Your task to perform on an android device: Open CNN.com Image 0: 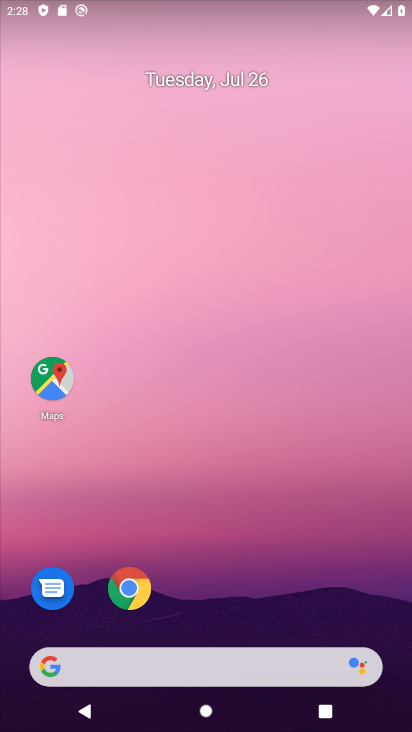
Step 0: drag from (230, 620) to (220, 102)
Your task to perform on an android device: Open CNN.com Image 1: 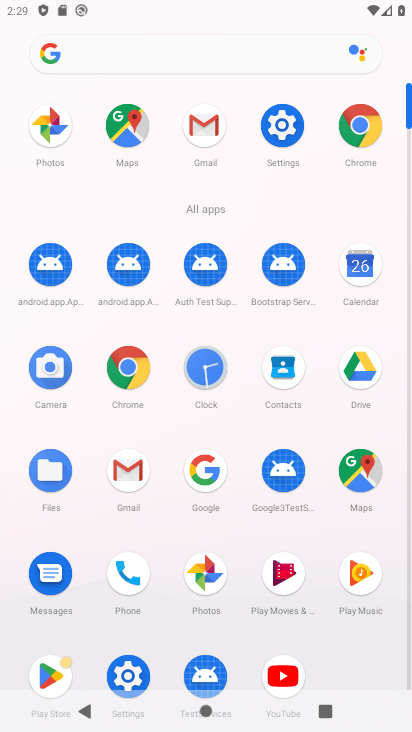
Step 1: click (356, 128)
Your task to perform on an android device: Open CNN.com Image 2: 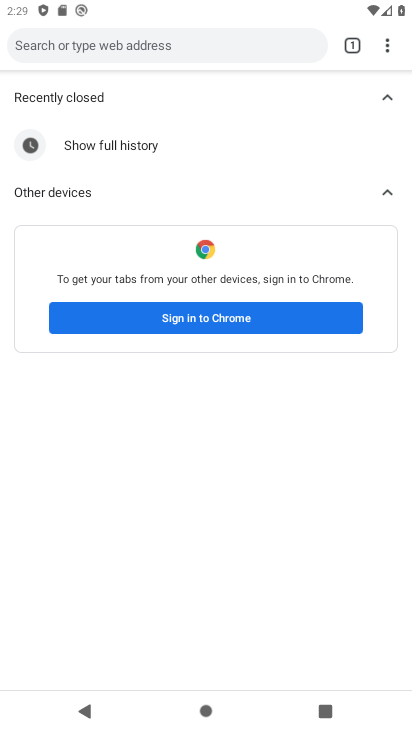
Step 2: click (208, 43)
Your task to perform on an android device: Open CNN.com Image 3: 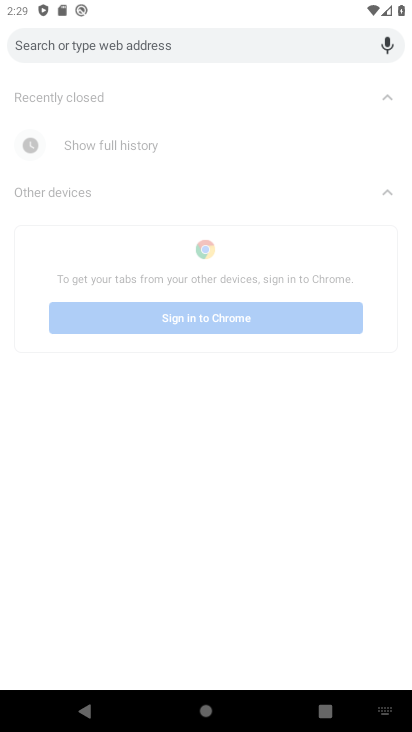
Step 3: type "cnn.com"
Your task to perform on an android device: Open CNN.com Image 4: 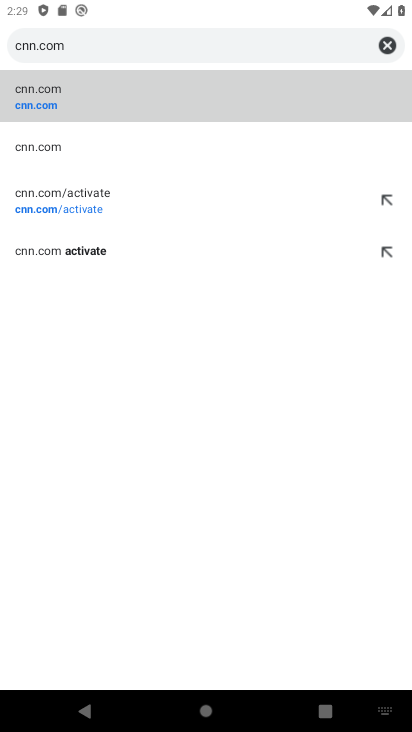
Step 4: click (49, 100)
Your task to perform on an android device: Open CNN.com Image 5: 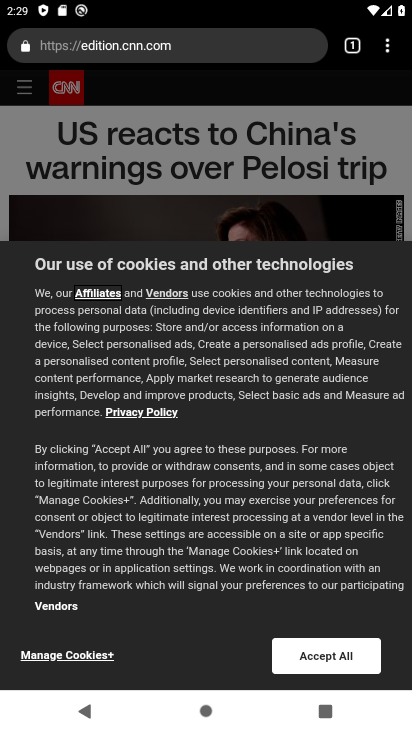
Step 5: task complete